Your task to perform on an android device: choose inbox layout in the gmail app Image 0: 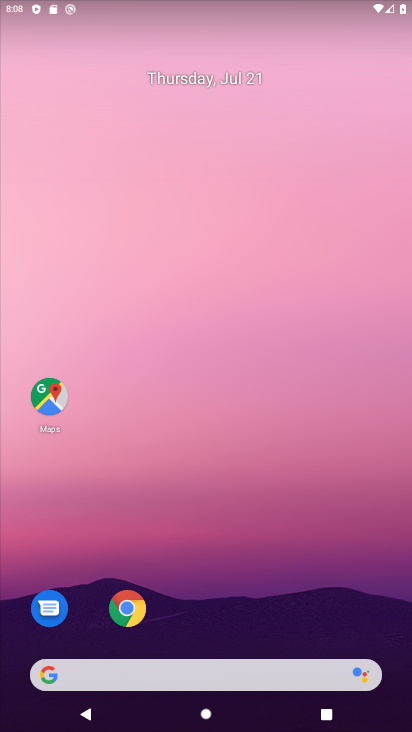
Step 0: drag from (67, 616) to (243, 160)
Your task to perform on an android device: choose inbox layout in the gmail app Image 1: 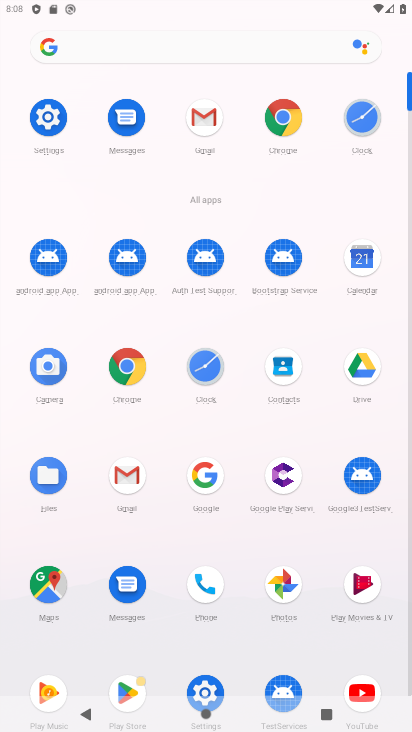
Step 1: click (205, 120)
Your task to perform on an android device: choose inbox layout in the gmail app Image 2: 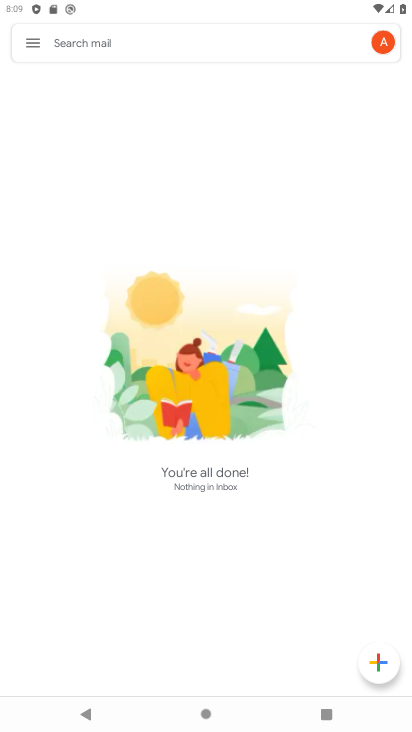
Step 2: click (30, 34)
Your task to perform on an android device: choose inbox layout in the gmail app Image 3: 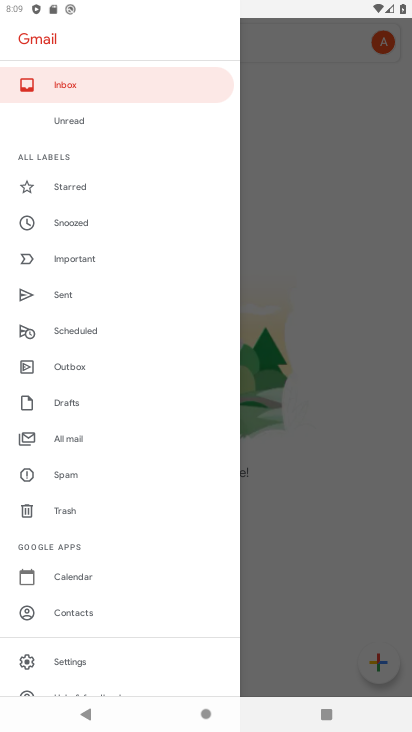
Step 3: click (68, 659)
Your task to perform on an android device: choose inbox layout in the gmail app Image 4: 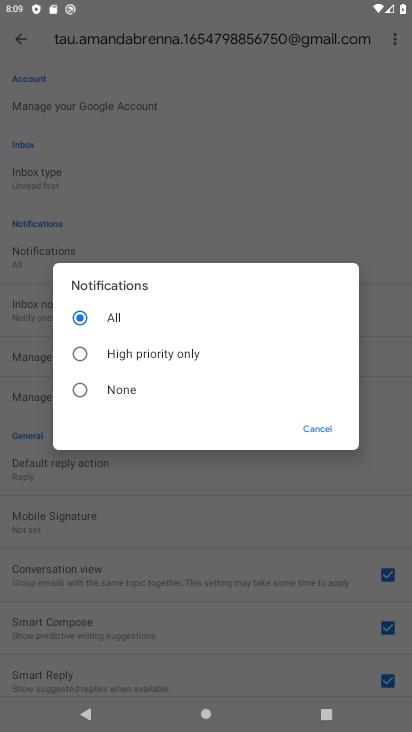
Step 4: task complete